Your task to perform on an android device: turn on the 24-hour format for clock Image 0: 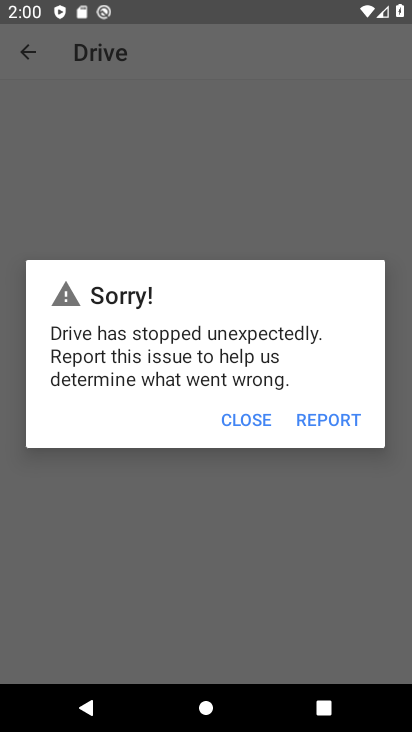
Step 0: press home button
Your task to perform on an android device: turn on the 24-hour format for clock Image 1: 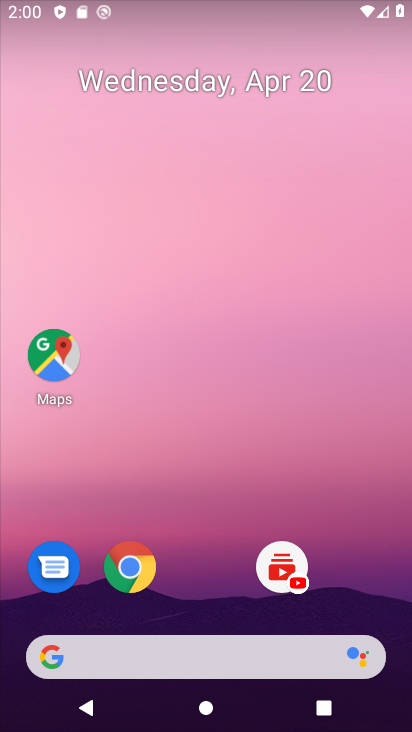
Step 1: drag from (237, 420) to (333, 156)
Your task to perform on an android device: turn on the 24-hour format for clock Image 2: 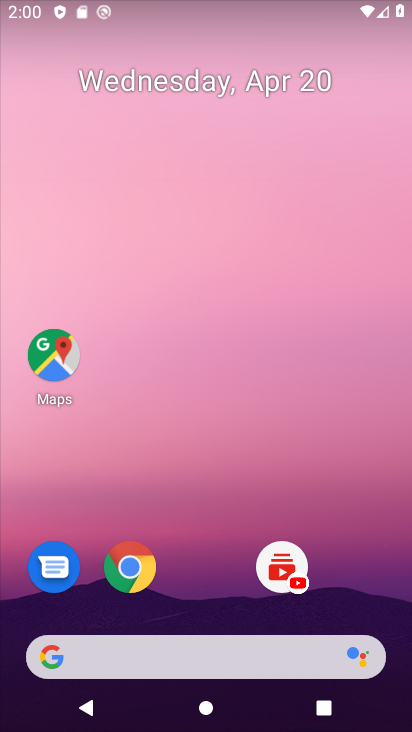
Step 2: drag from (222, 592) to (266, 181)
Your task to perform on an android device: turn on the 24-hour format for clock Image 3: 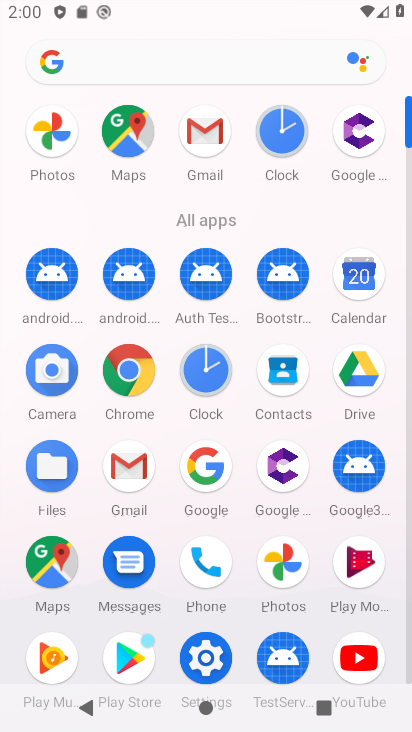
Step 3: click (207, 374)
Your task to perform on an android device: turn on the 24-hour format for clock Image 4: 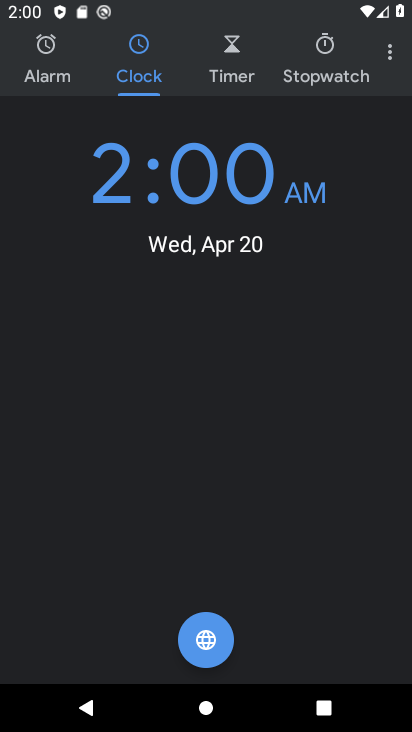
Step 4: click (387, 55)
Your task to perform on an android device: turn on the 24-hour format for clock Image 5: 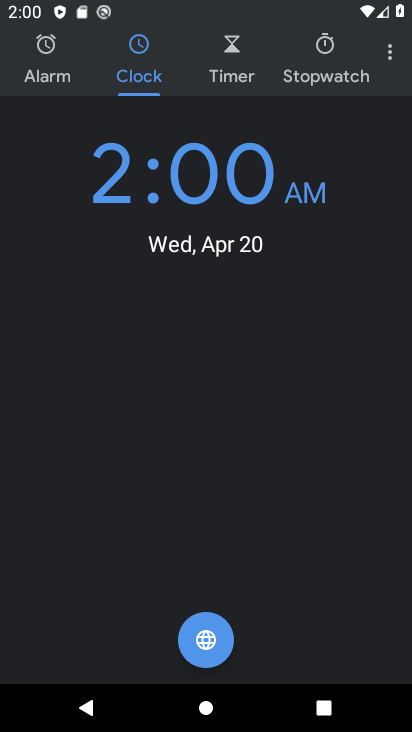
Step 5: click (314, 95)
Your task to perform on an android device: turn on the 24-hour format for clock Image 6: 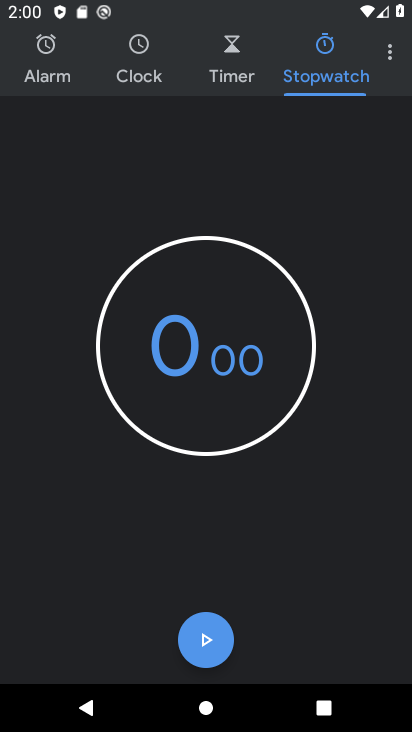
Step 6: click (382, 60)
Your task to perform on an android device: turn on the 24-hour format for clock Image 7: 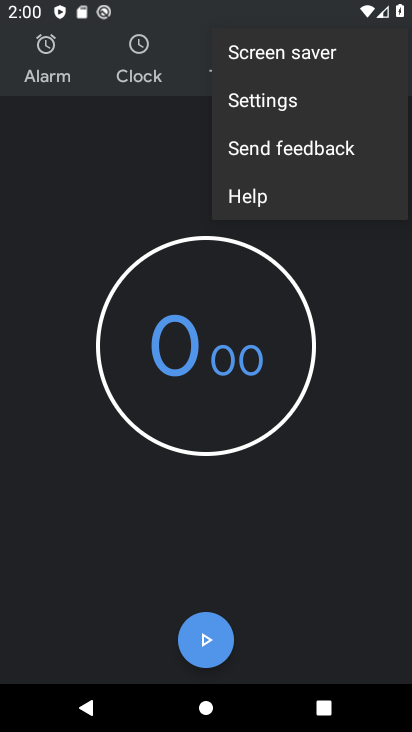
Step 7: click (325, 93)
Your task to perform on an android device: turn on the 24-hour format for clock Image 8: 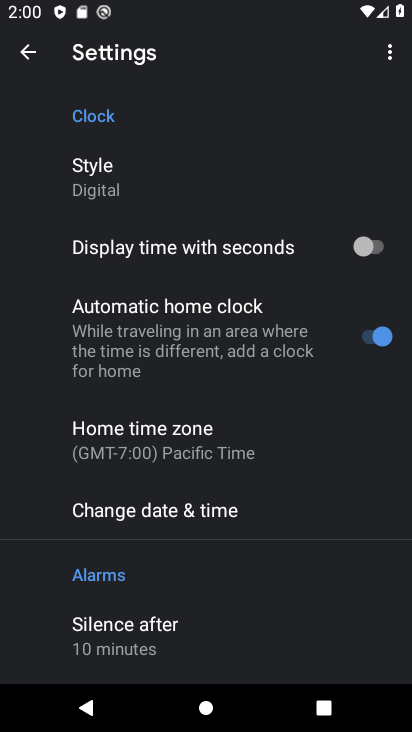
Step 8: drag from (247, 583) to (246, 6)
Your task to perform on an android device: turn on the 24-hour format for clock Image 9: 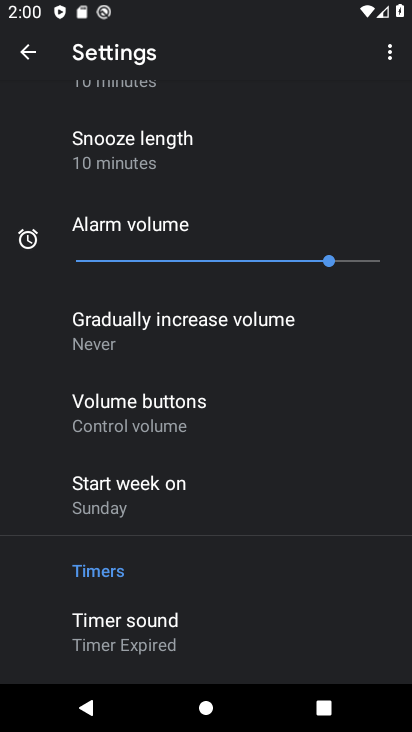
Step 9: drag from (212, 79) to (278, 578)
Your task to perform on an android device: turn on the 24-hour format for clock Image 10: 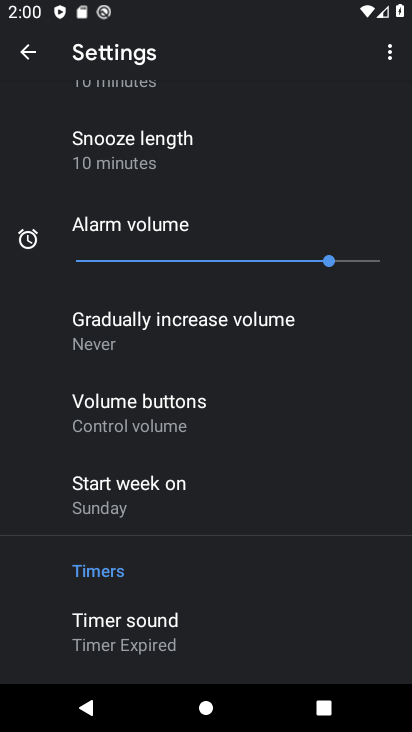
Step 10: drag from (308, 195) to (375, 494)
Your task to perform on an android device: turn on the 24-hour format for clock Image 11: 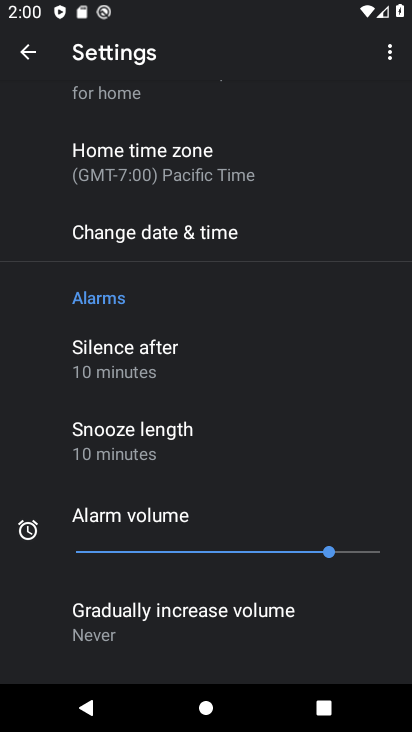
Step 11: click (268, 218)
Your task to perform on an android device: turn on the 24-hour format for clock Image 12: 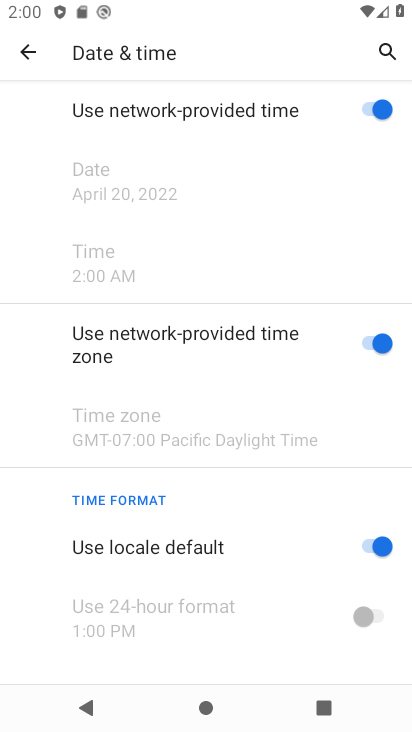
Step 12: drag from (262, 554) to (268, 188)
Your task to perform on an android device: turn on the 24-hour format for clock Image 13: 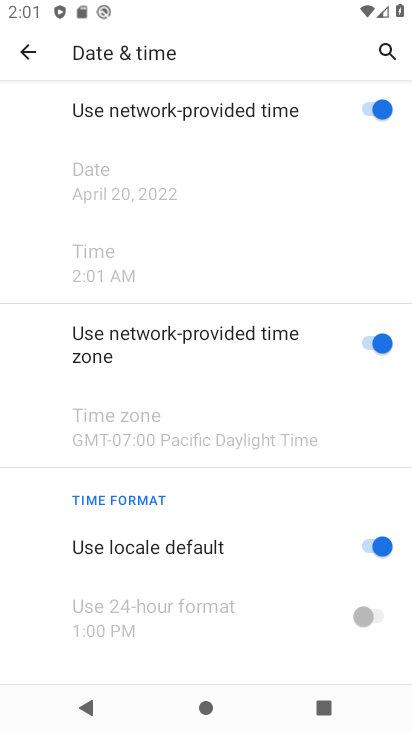
Step 13: click (346, 541)
Your task to perform on an android device: turn on the 24-hour format for clock Image 14: 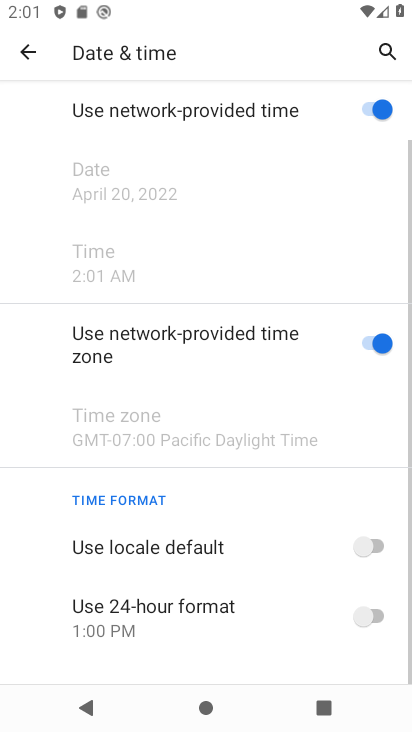
Step 14: click (337, 618)
Your task to perform on an android device: turn on the 24-hour format for clock Image 15: 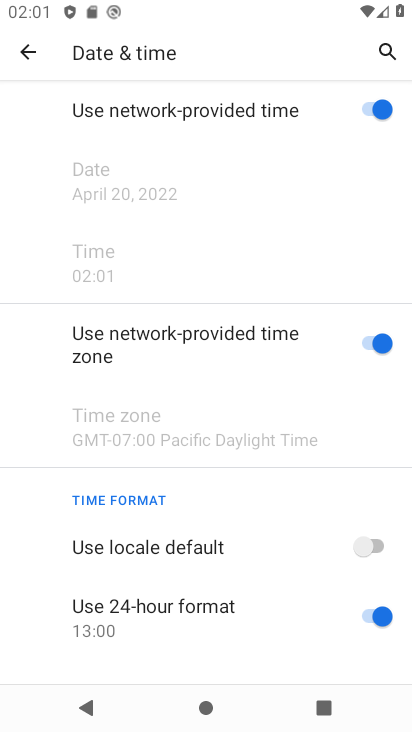
Step 15: task complete